Your task to perform on an android device: Go to location settings Image 0: 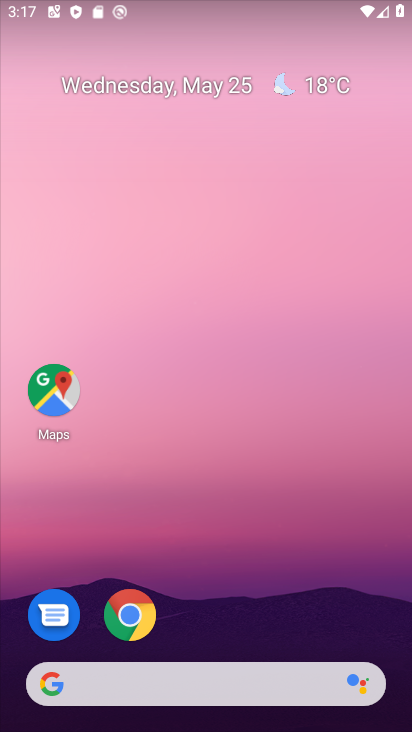
Step 0: drag from (292, 622) to (198, 100)
Your task to perform on an android device: Go to location settings Image 1: 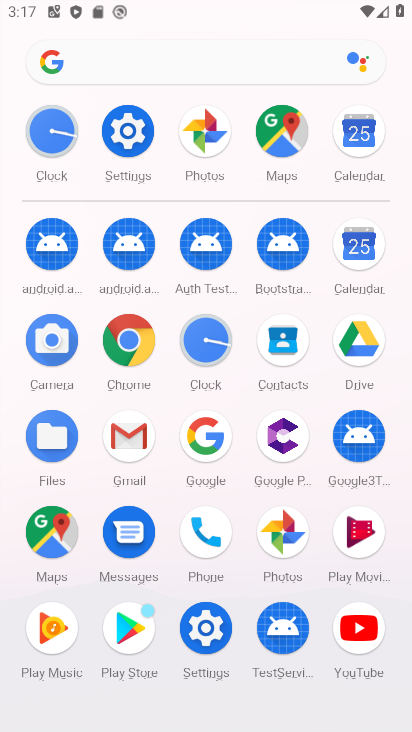
Step 1: click (199, 640)
Your task to perform on an android device: Go to location settings Image 2: 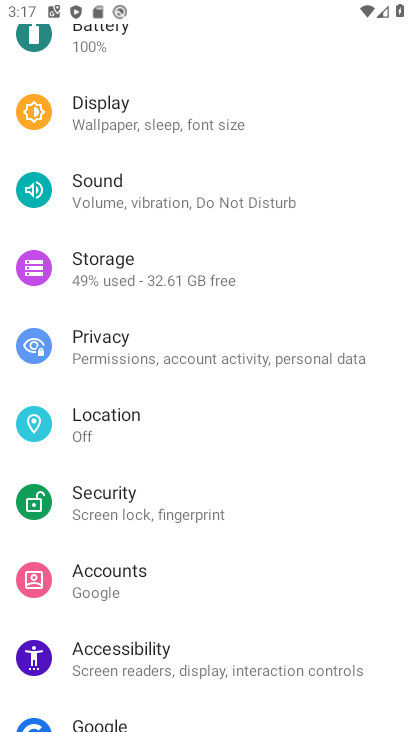
Step 2: click (134, 414)
Your task to perform on an android device: Go to location settings Image 3: 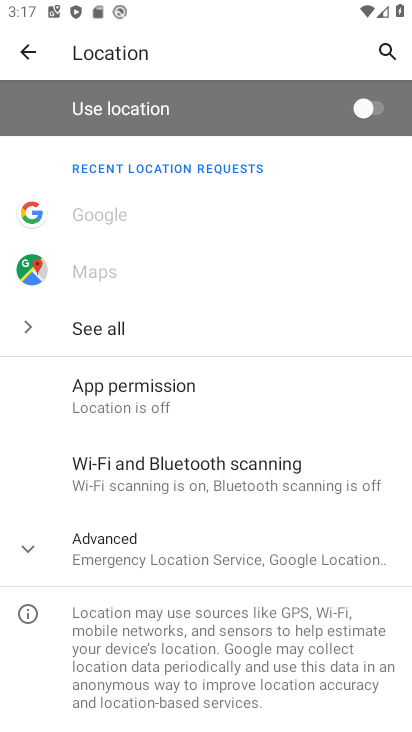
Step 3: task complete